Your task to perform on an android device: Go to network settings Image 0: 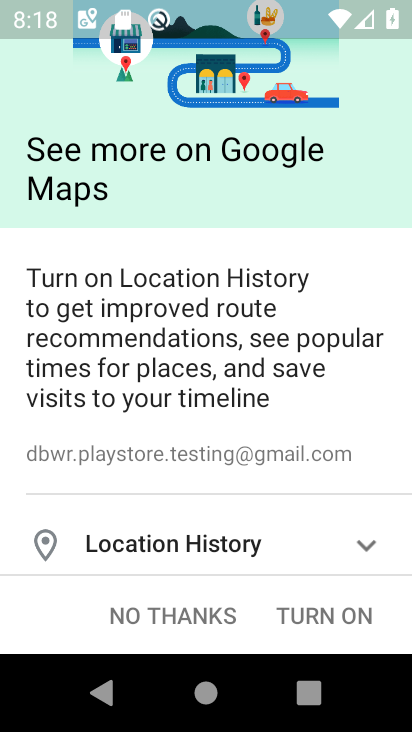
Step 0: press home button
Your task to perform on an android device: Go to network settings Image 1: 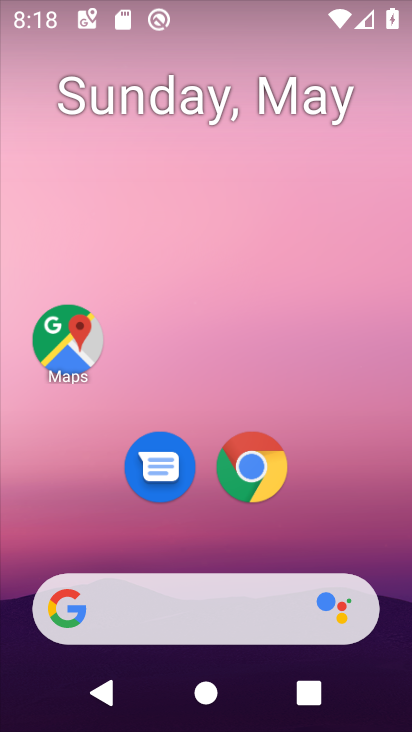
Step 1: drag from (337, 519) to (334, 159)
Your task to perform on an android device: Go to network settings Image 2: 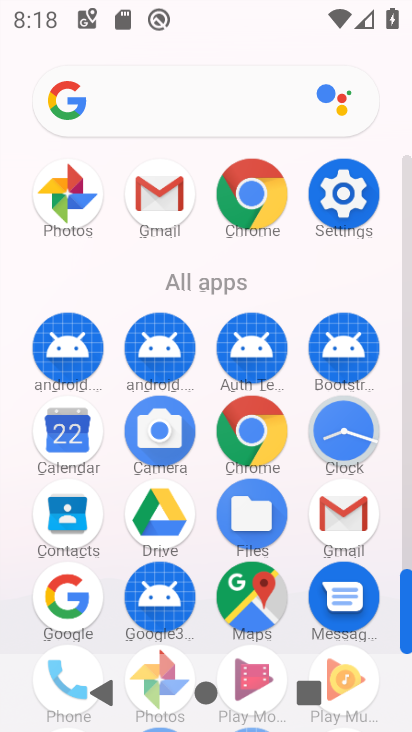
Step 2: click (361, 185)
Your task to perform on an android device: Go to network settings Image 3: 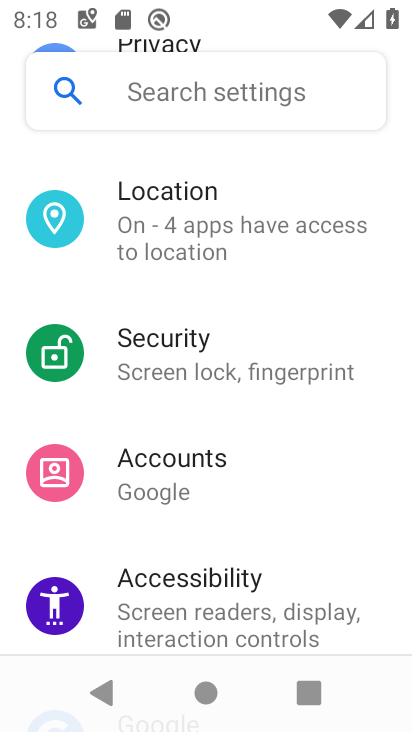
Step 3: drag from (250, 213) to (221, 531)
Your task to perform on an android device: Go to network settings Image 4: 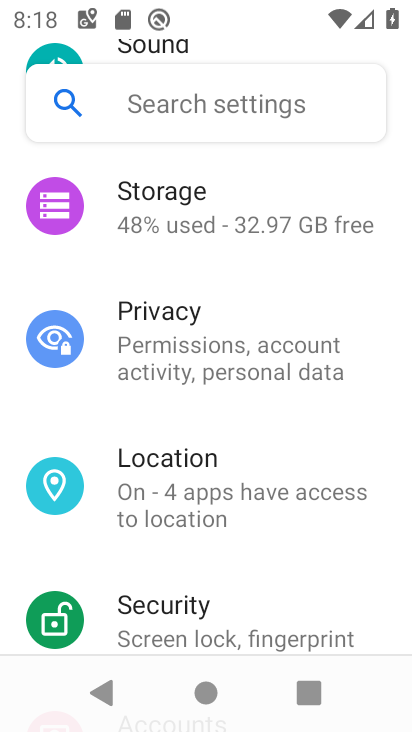
Step 4: drag from (212, 204) to (245, 617)
Your task to perform on an android device: Go to network settings Image 5: 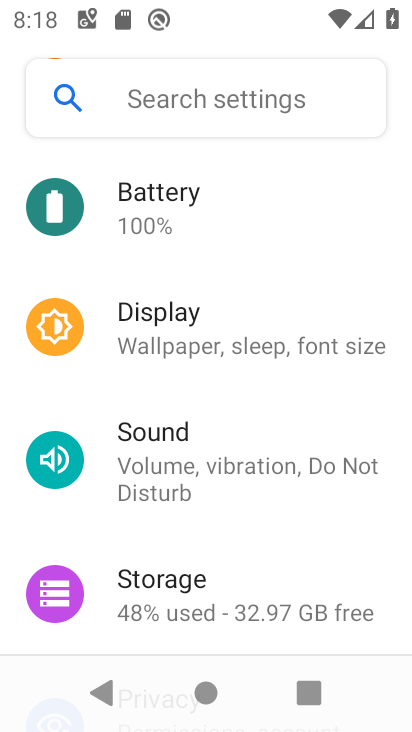
Step 5: drag from (251, 215) to (265, 584)
Your task to perform on an android device: Go to network settings Image 6: 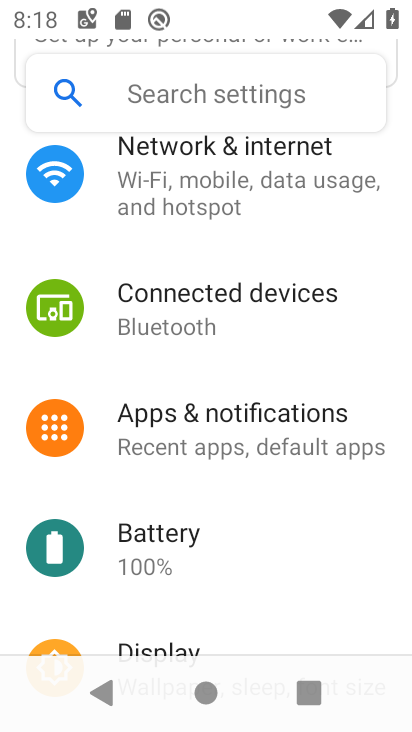
Step 6: drag from (272, 210) to (276, 610)
Your task to perform on an android device: Go to network settings Image 7: 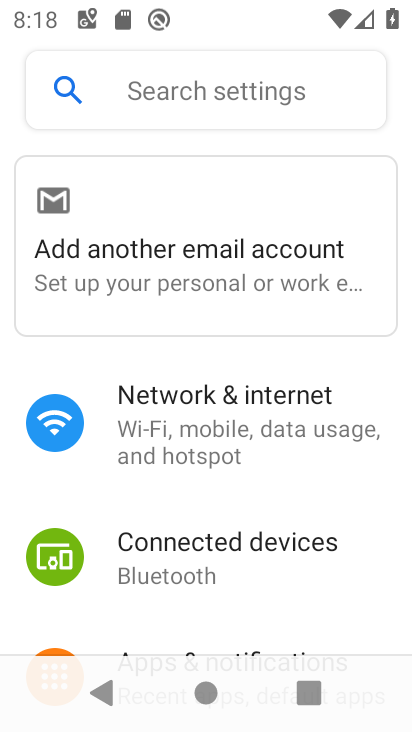
Step 7: click (226, 445)
Your task to perform on an android device: Go to network settings Image 8: 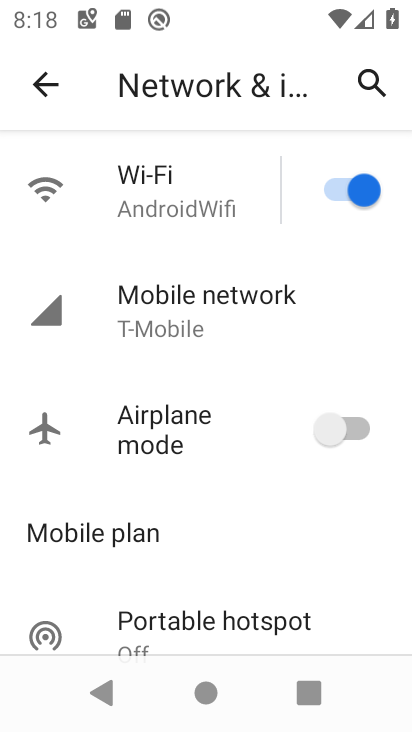
Step 8: task complete